Your task to perform on an android device: Open the calendar app, open the side menu, and click the "Day" option Image 0: 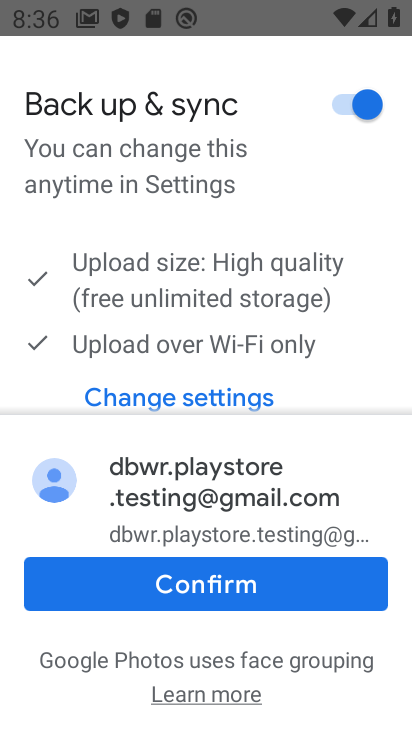
Step 0: press home button
Your task to perform on an android device: Open the calendar app, open the side menu, and click the "Day" option Image 1: 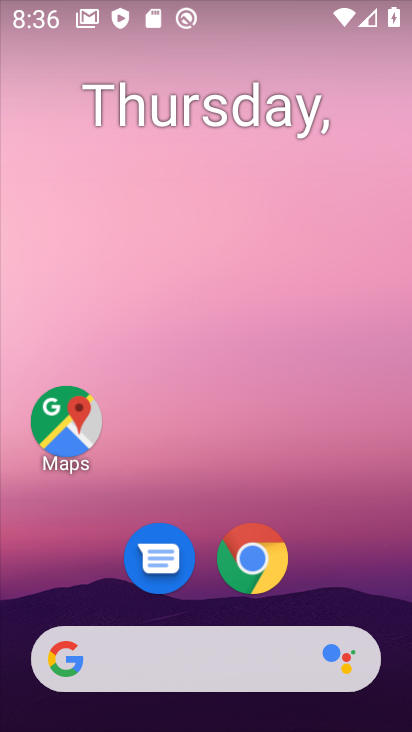
Step 1: drag from (387, 629) to (286, 48)
Your task to perform on an android device: Open the calendar app, open the side menu, and click the "Day" option Image 2: 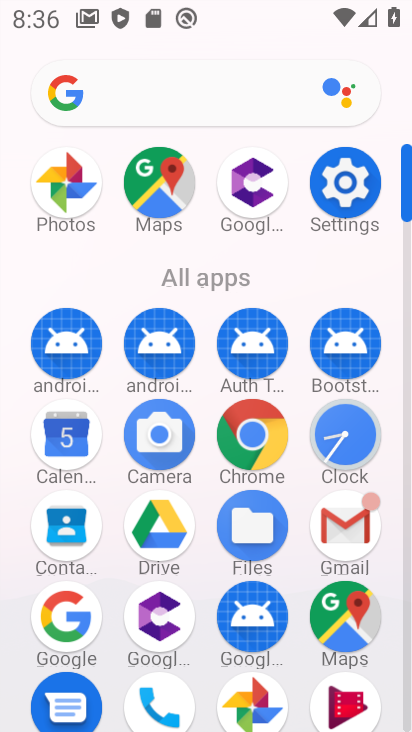
Step 2: click (408, 694)
Your task to perform on an android device: Open the calendar app, open the side menu, and click the "Day" option Image 3: 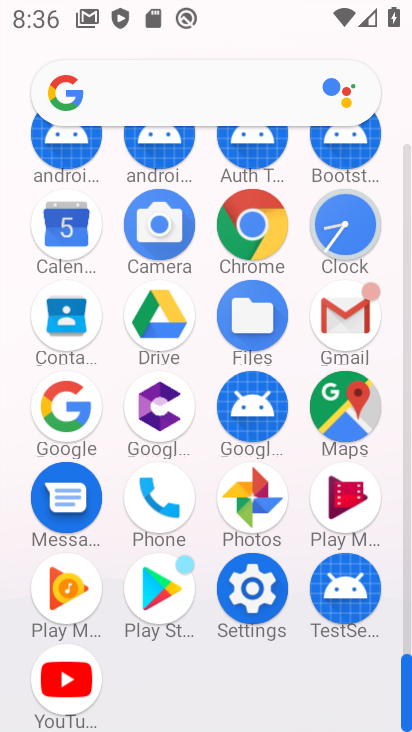
Step 3: click (63, 227)
Your task to perform on an android device: Open the calendar app, open the side menu, and click the "Day" option Image 4: 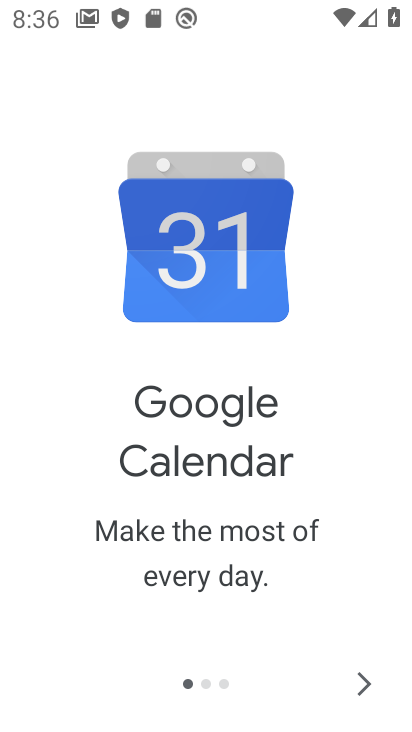
Step 4: click (364, 677)
Your task to perform on an android device: Open the calendar app, open the side menu, and click the "Day" option Image 5: 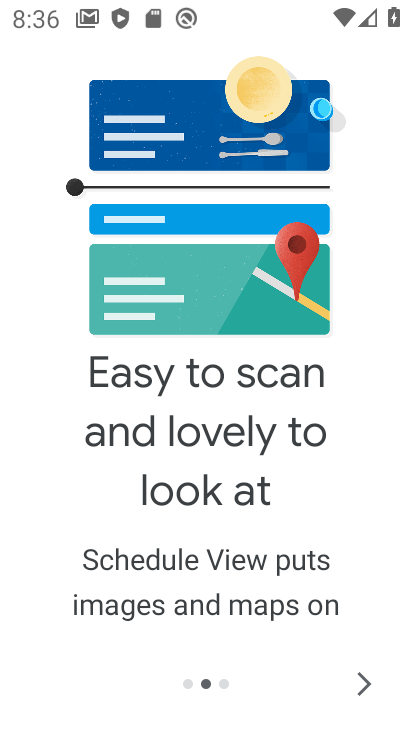
Step 5: click (364, 677)
Your task to perform on an android device: Open the calendar app, open the side menu, and click the "Day" option Image 6: 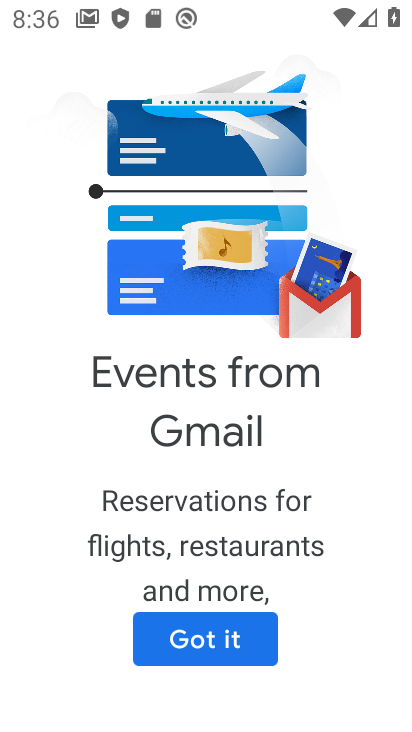
Step 6: click (198, 636)
Your task to perform on an android device: Open the calendar app, open the side menu, and click the "Day" option Image 7: 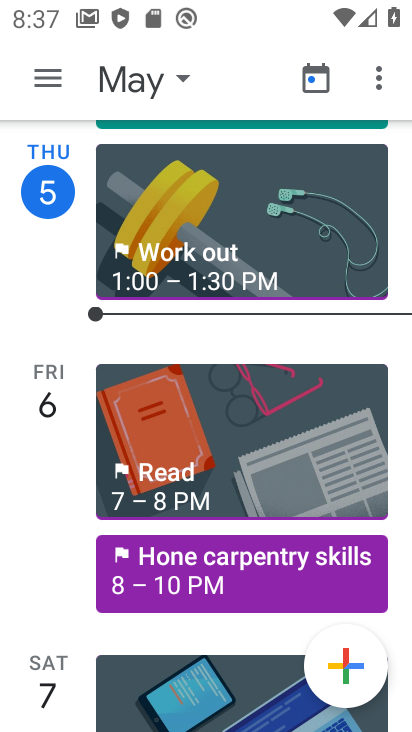
Step 7: click (45, 74)
Your task to perform on an android device: Open the calendar app, open the side menu, and click the "Day" option Image 8: 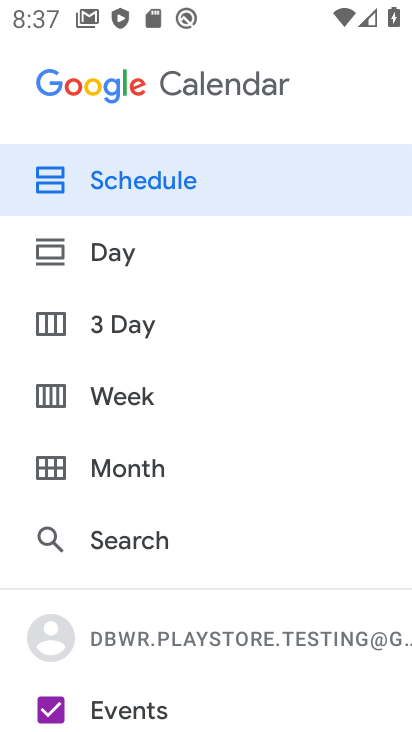
Step 8: click (115, 252)
Your task to perform on an android device: Open the calendar app, open the side menu, and click the "Day" option Image 9: 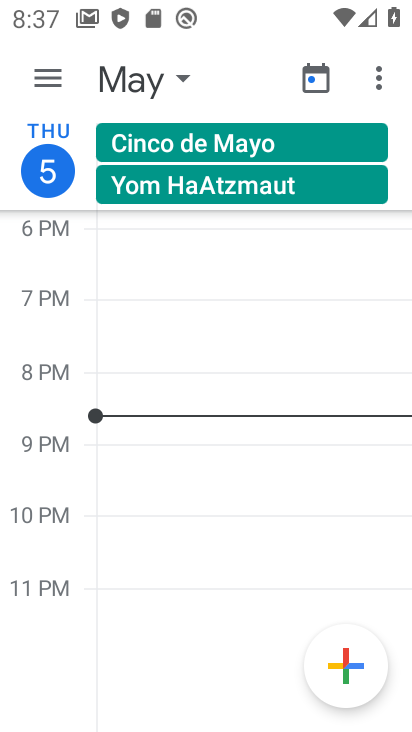
Step 9: task complete